Your task to perform on an android device: delete location history Image 0: 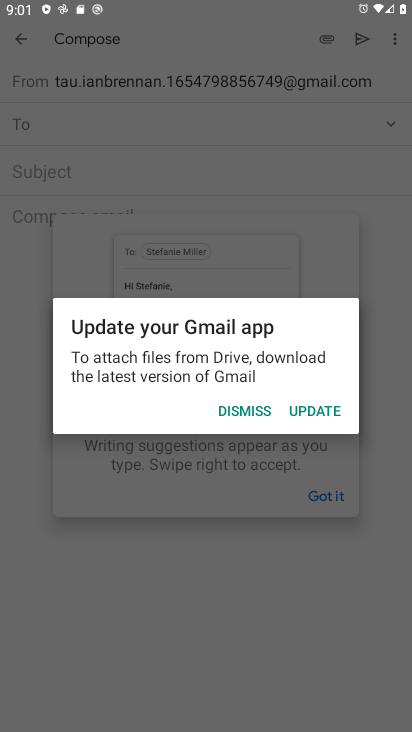
Step 0: click (250, 408)
Your task to perform on an android device: delete location history Image 1: 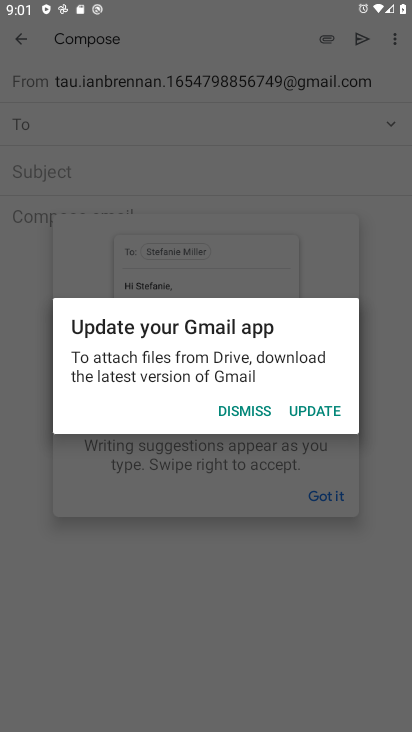
Step 1: click (252, 409)
Your task to perform on an android device: delete location history Image 2: 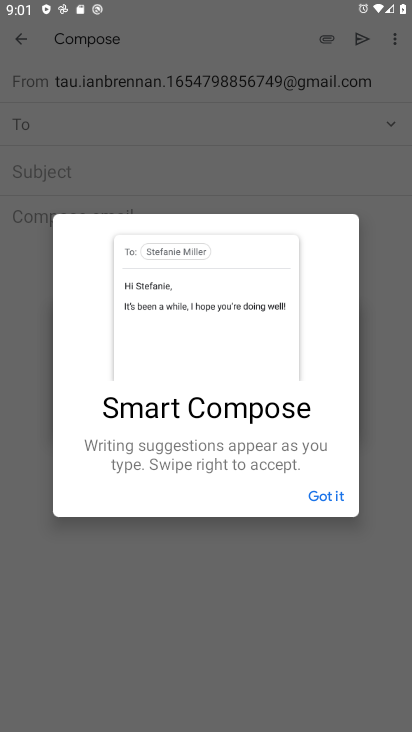
Step 2: click (4, 31)
Your task to perform on an android device: delete location history Image 3: 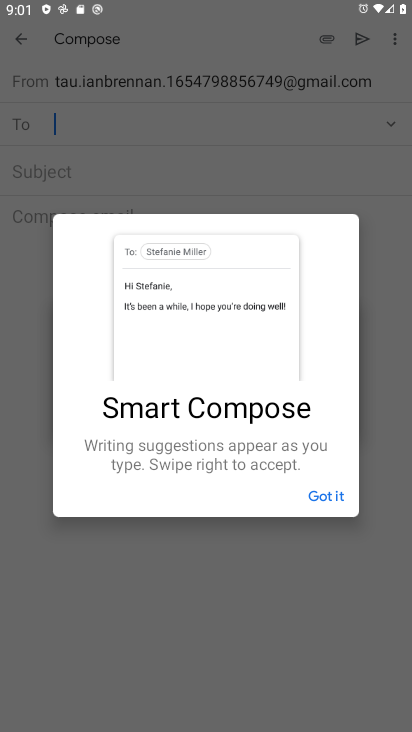
Step 3: click (8, 35)
Your task to perform on an android device: delete location history Image 4: 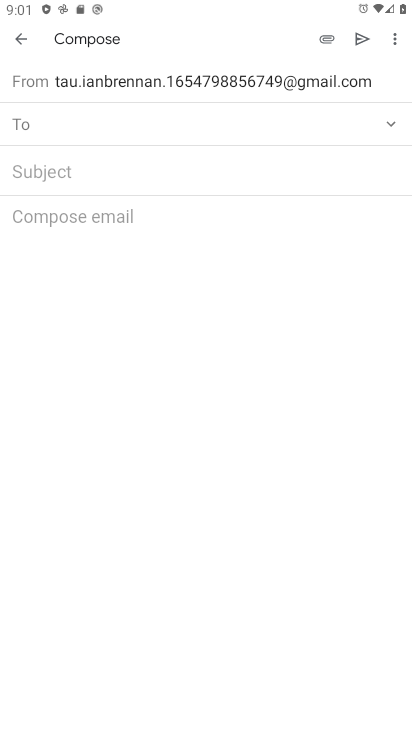
Step 4: click (17, 37)
Your task to perform on an android device: delete location history Image 5: 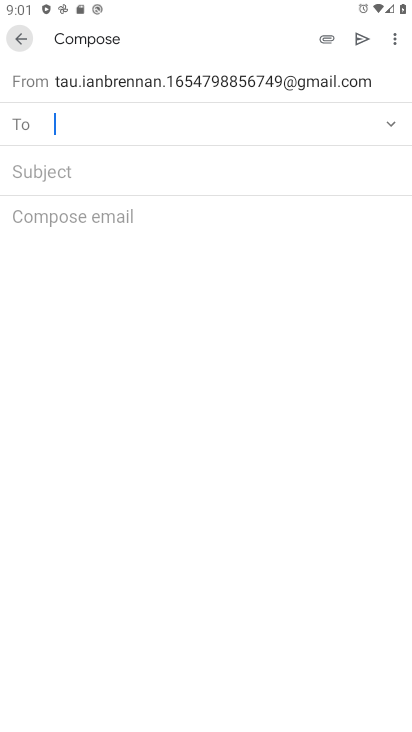
Step 5: click (16, 37)
Your task to perform on an android device: delete location history Image 6: 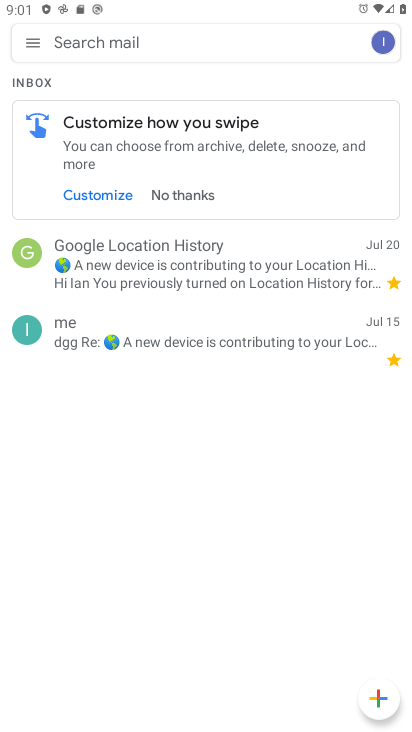
Step 6: click (39, 32)
Your task to perform on an android device: delete location history Image 7: 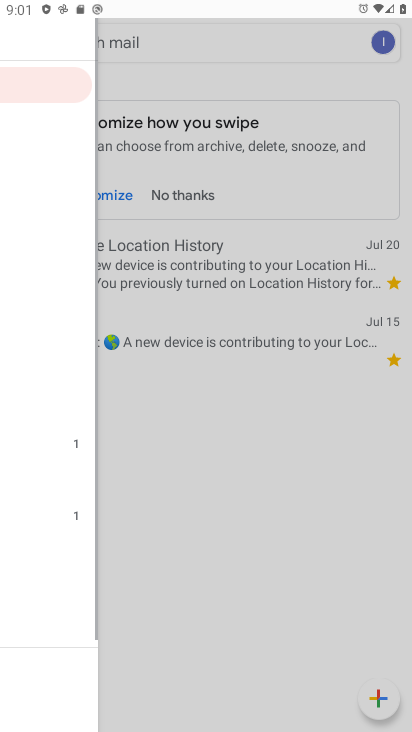
Step 7: click (36, 43)
Your task to perform on an android device: delete location history Image 8: 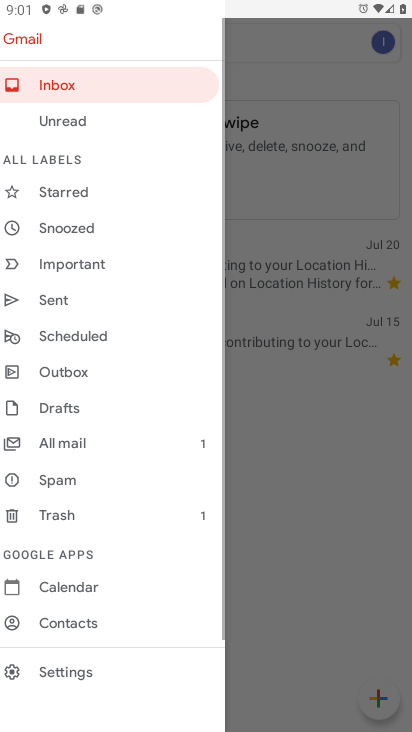
Step 8: click (35, 44)
Your task to perform on an android device: delete location history Image 9: 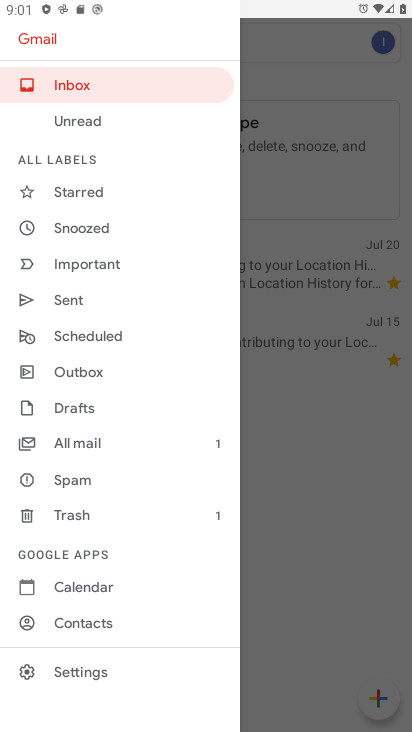
Step 9: press back button
Your task to perform on an android device: delete location history Image 10: 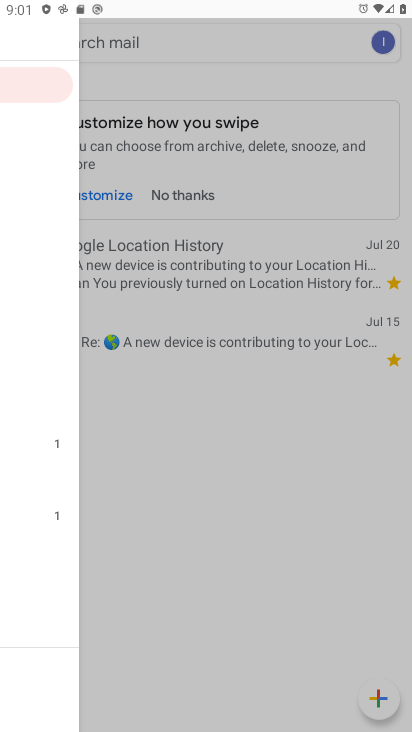
Step 10: press back button
Your task to perform on an android device: delete location history Image 11: 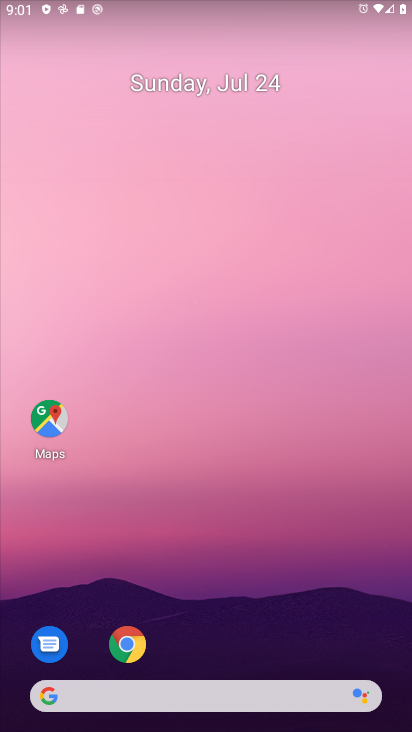
Step 11: click (175, 157)
Your task to perform on an android device: delete location history Image 12: 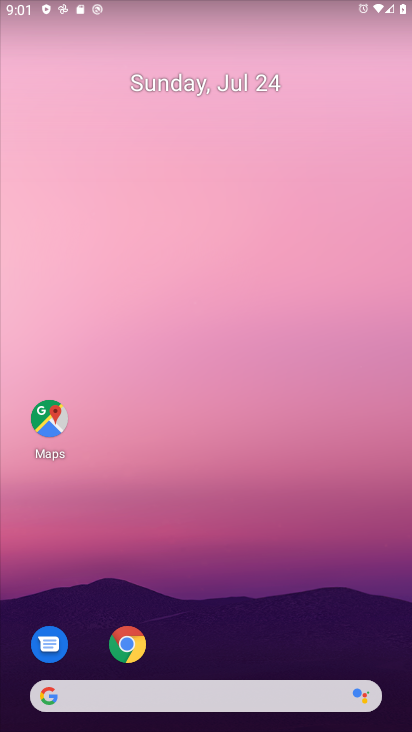
Step 12: drag from (215, 686) to (183, 195)
Your task to perform on an android device: delete location history Image 13: 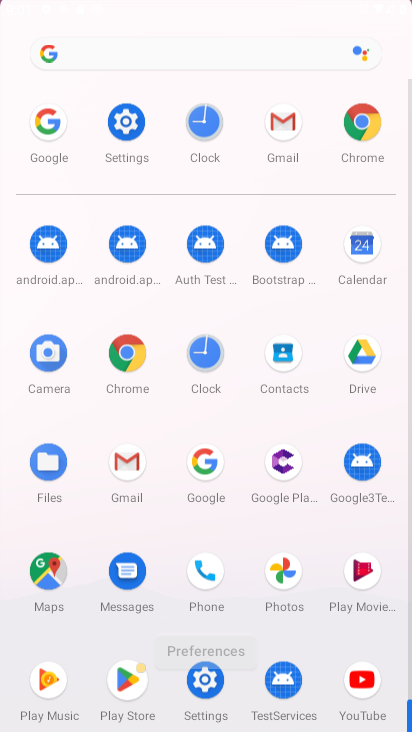
Step 13: drag from (251, 621) to (216, 165)
Your task to perform on an android device: delete location history Image 14: 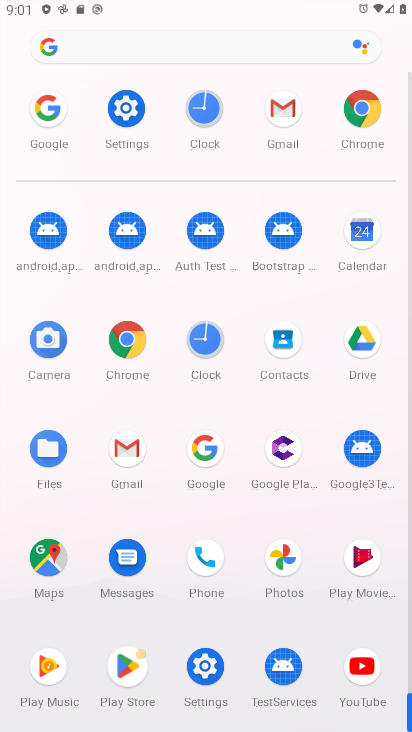
Step 14: drag from (174, 414) to (174, 238)
Your task to perform on an android device: delete location history Image 15: 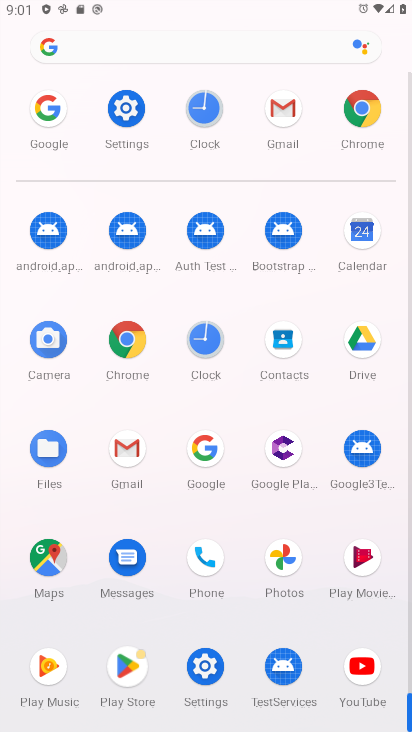
Step 15: click (122, 122)
Your task to perform on an android device: delete location history Image 16: 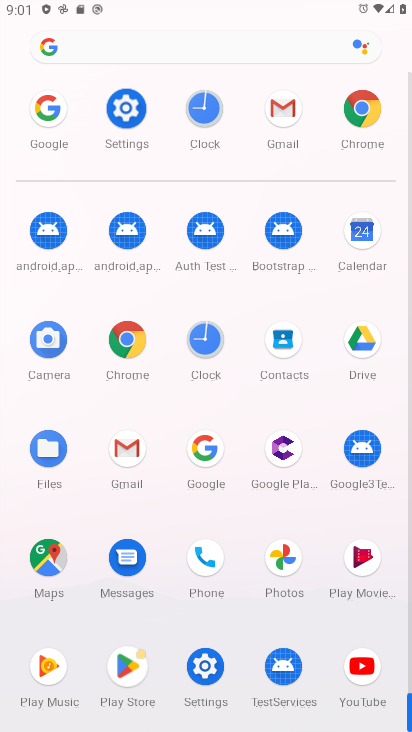
Step 16: click (123, 119)
Your task to perform on an android device: delete location history Image 17: 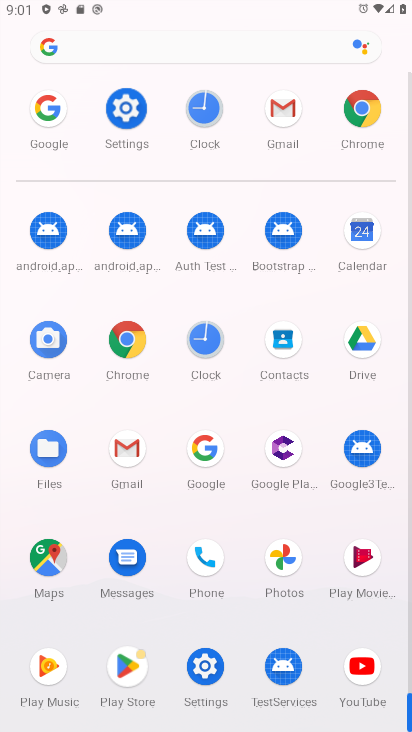
Step 17: click (125, 120)
Your task to perform on an android device: delete location history Image 18: 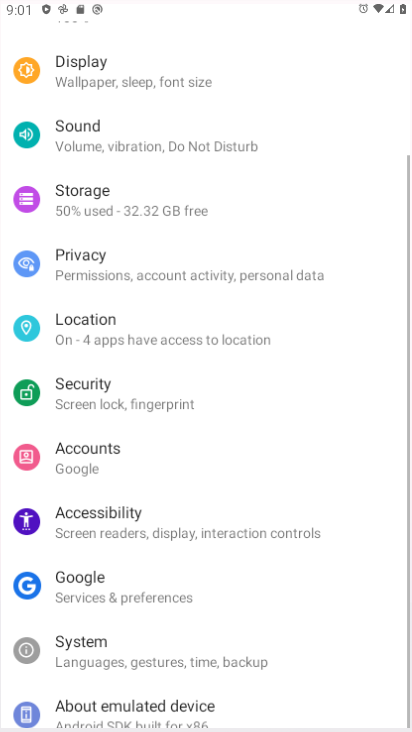
Step 18: click (127, 121)
Your task to perform on an android device: delete location history Image 19: 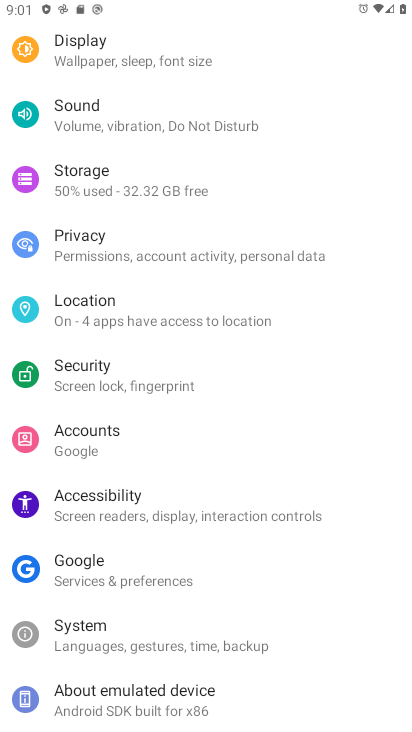
Step 19: click (126, 121)
Your task to perform on an android device: delete location history Image 20: 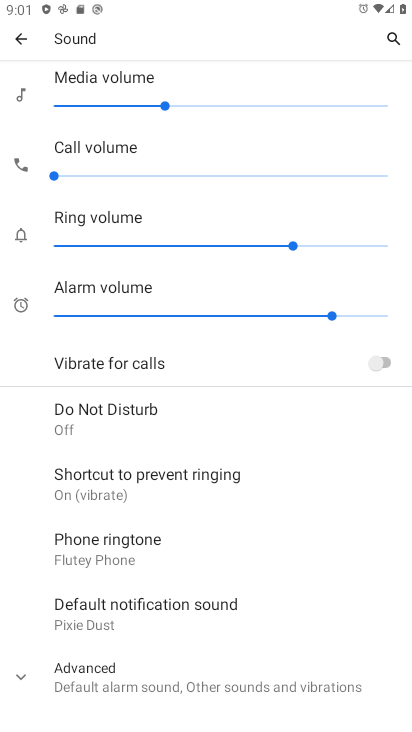
Step 20: drag from (150, 561) to (130, 323)
Your task to perform on an android device: delete location history Image 21: 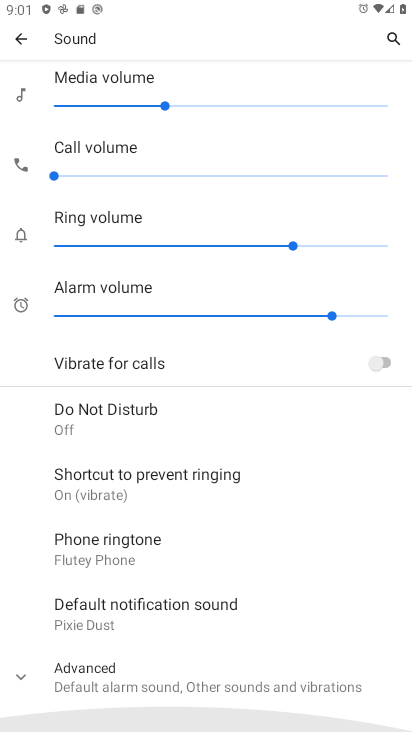
Step 21: drag from (160, 538) to (160, 261)
Your task to perform on an android device: delete location history Image 22: 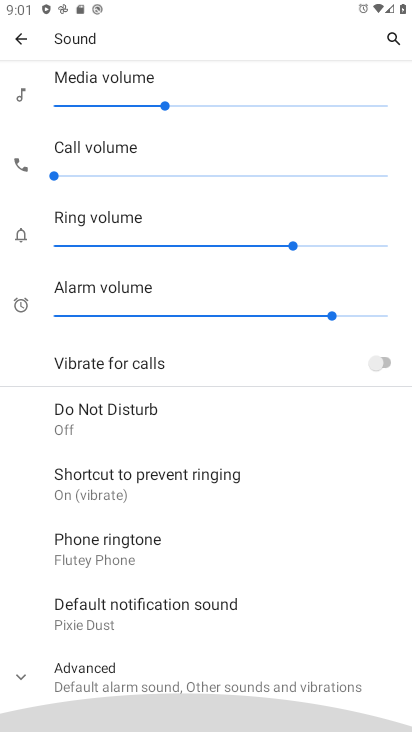
Step 22: drag from (174, 340) to (77, 668)
Your task to perform on an android device: delete location history Image 23: 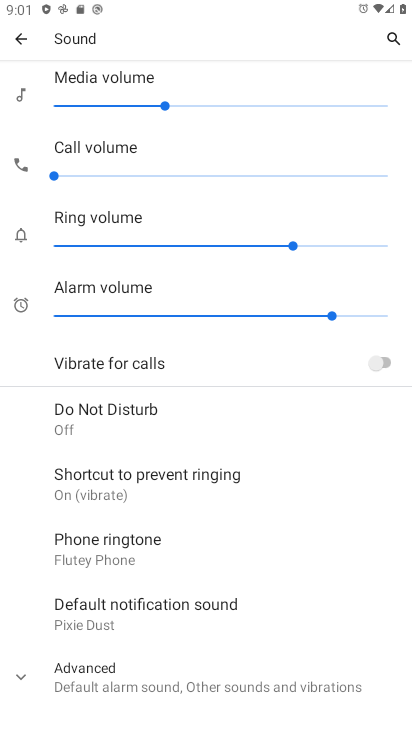
Step 23: click (78, 668)
Your task to perform on an android device: delete location history Image 24: 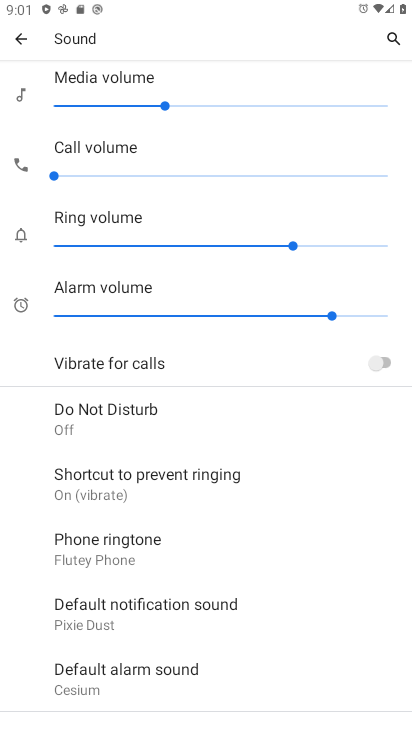
Step 24: click (183, 391)
Your task to perform on an android device: delete location history Image 25: 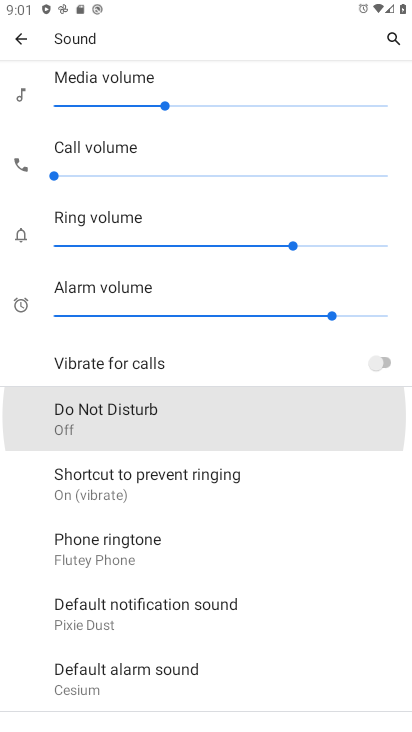
Step 25: drag from (193, 546) to (205, 223)
Your task to perform on an android device: delete location history Image 26: 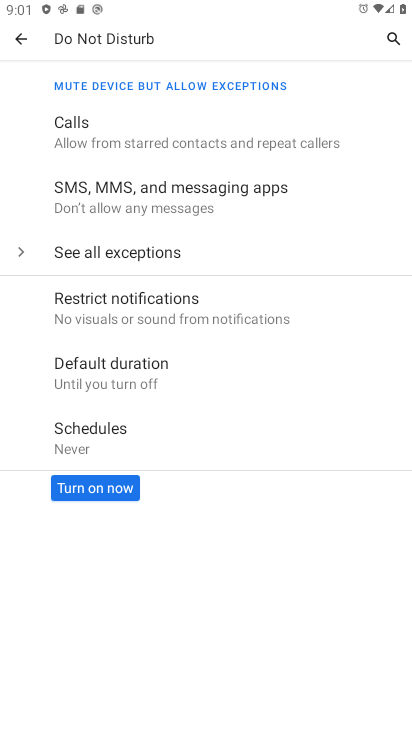
Step 26: click (12, 38)
Your task to perform on an android device: delete location history Image 27: 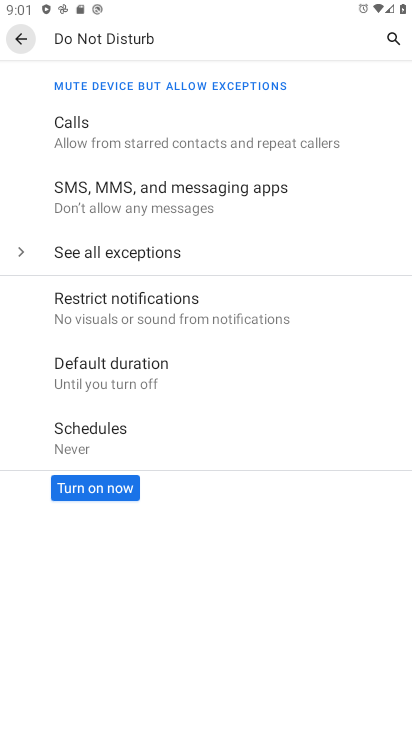
Step 27: click (11, 38)
Your task to perform on an android device: delete location history Image 28: 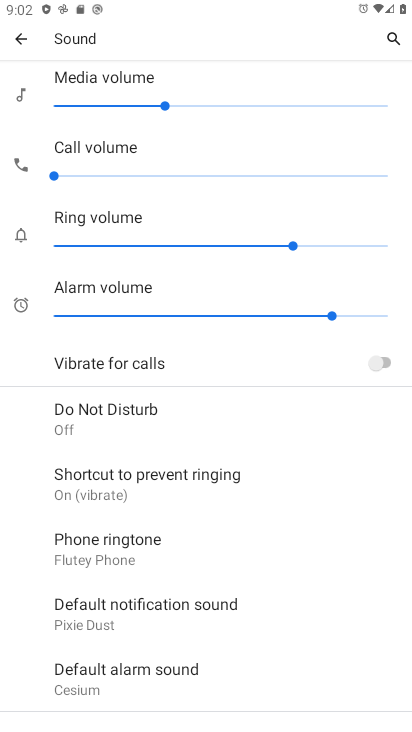
Step 28: click (121, 182)
Your task to perform on an android device: delete location history Image 29: 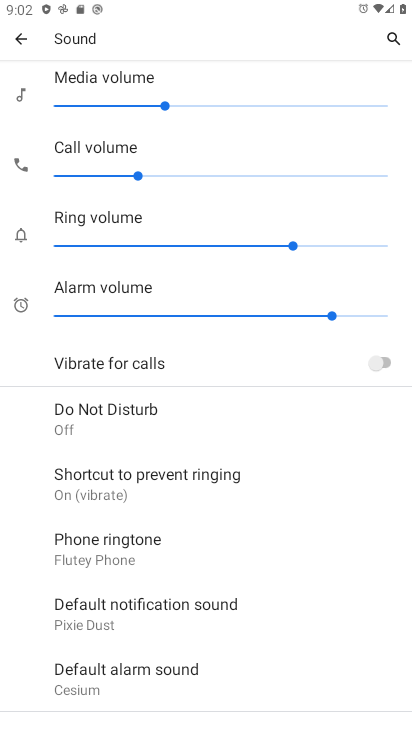
Step 29: click (24, 36)
Your task to perform on an android device: delete location history Image 30: 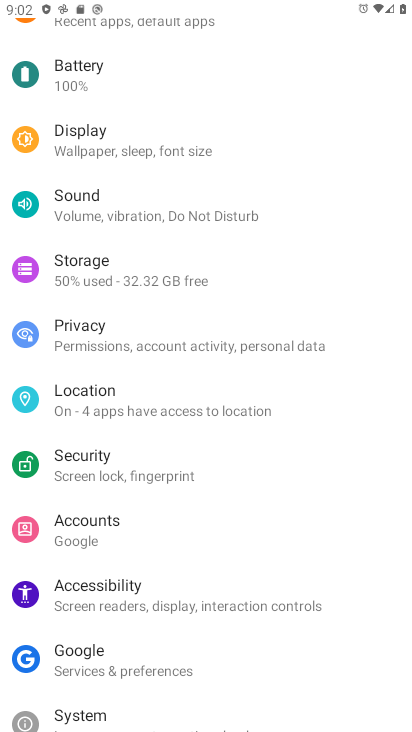
Step 30: click (116, 413)
Your task to perform on an android device: delete location history Image 31: 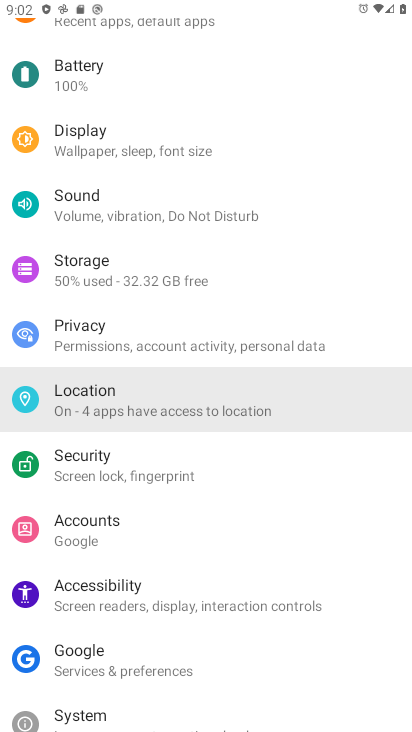
Step 31: click (113, 411)
Your task to perform on an android device: delete location history Image 32: 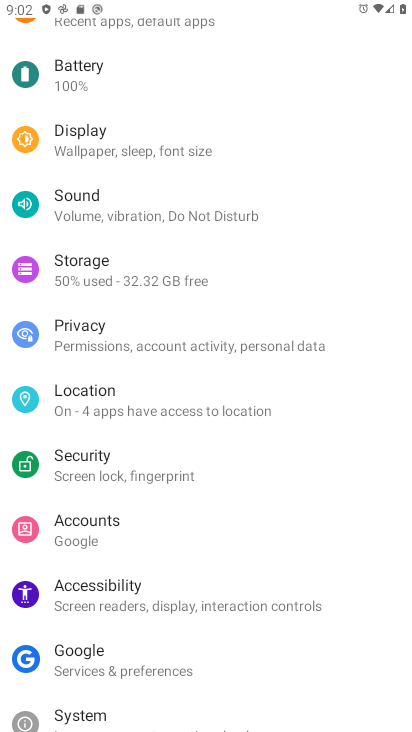
Step 32: click (115, 409)
Your task to perform on an android device: delete location history Image 33: 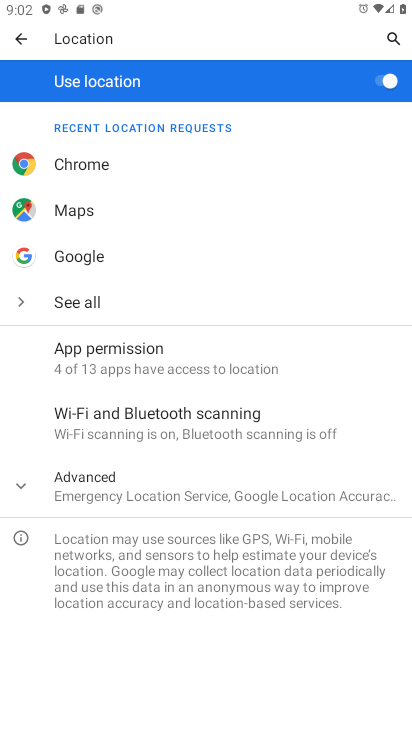
Step 33: click (92, 474)
Your task to perform on an android device: delete location history Image 34: 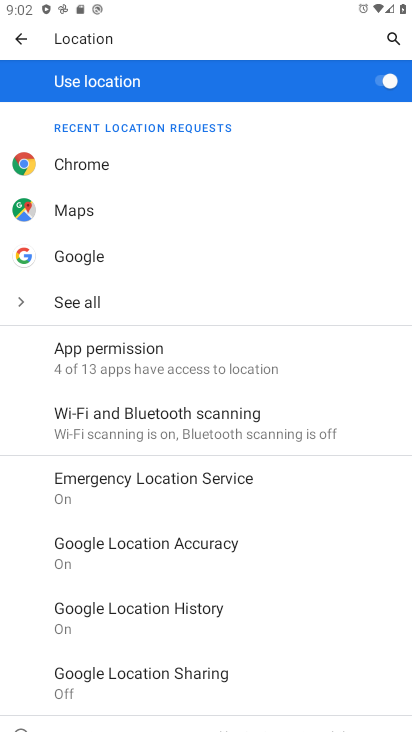
Step 34: click (162, 605)
Your task to perform on an android device: delete location history Image 35: 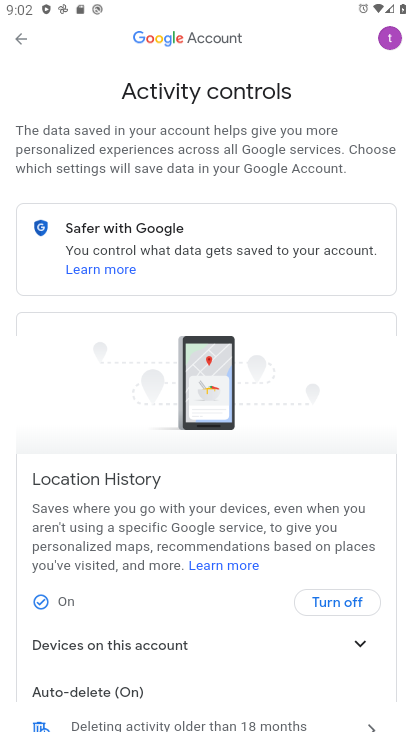
Step 35: click (346, 592)
Your task to perform on an android device: delete location history Image 36: 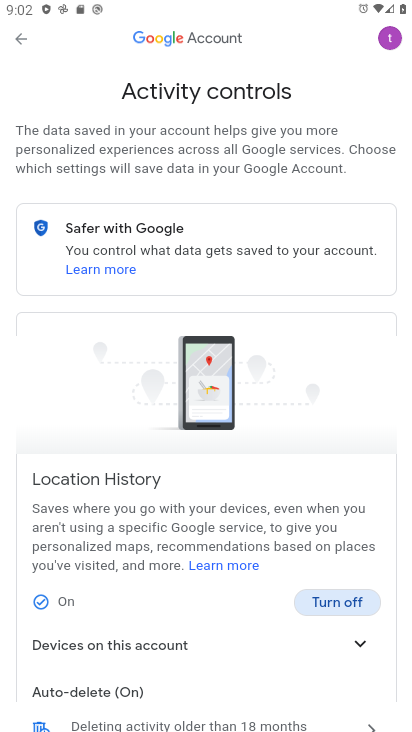
Step 36: task complete